Your task to perform on an android device: Open Google Chrome Image 0: 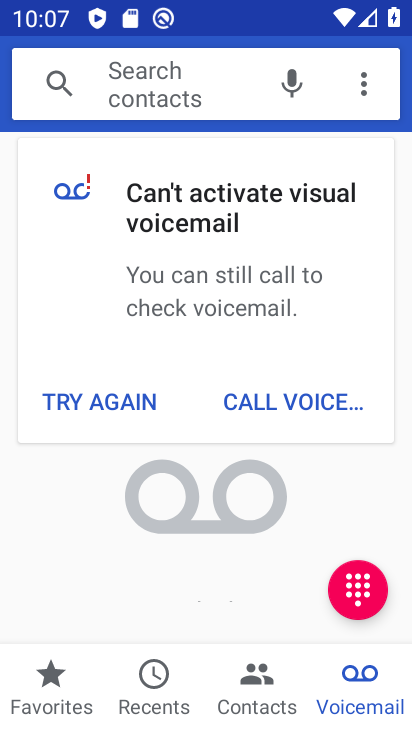
Step 0: press home button
Your task to perform on an android device: Open Google Chrome Image 1: 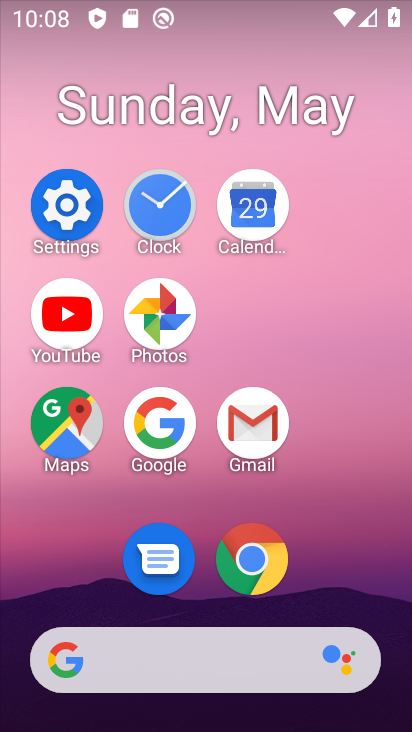
Step 1: click (241, 576)
Your task to perform on an android device: Open Google Chrome Image 2: 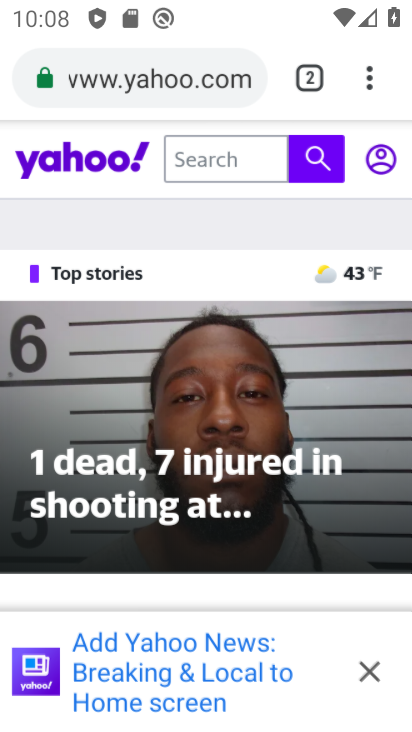
Step 2: task complete